Your task to perform on an android device: Open my contact list Image 0: 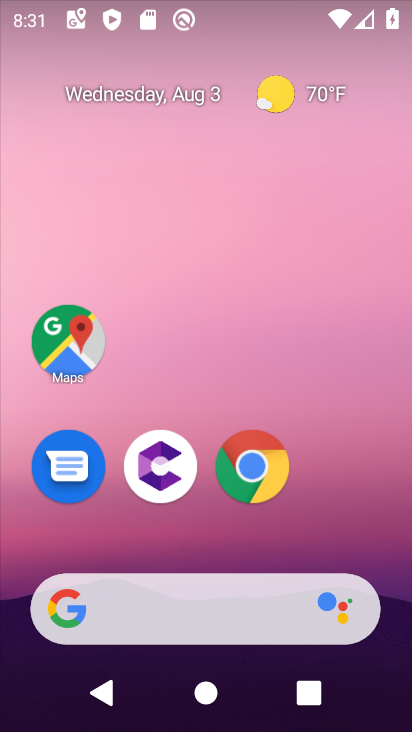
Step 0: drag from (342, 491) to (307, 26)
Your task to perform on an android device: Open my contact list Image 1: 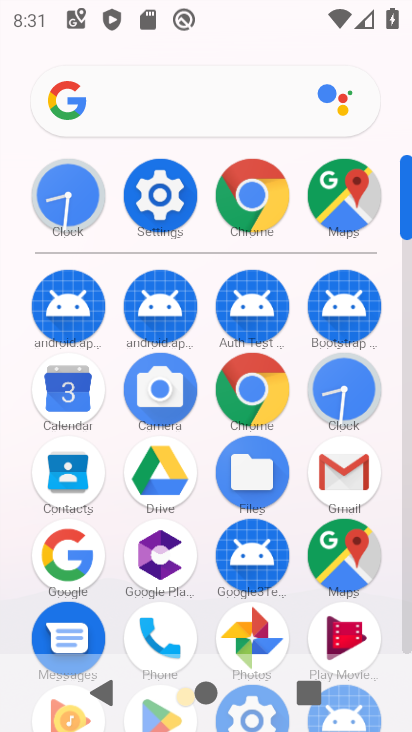
Step 1: drag from (302, 507) to (300, 189)
Your task to perform on an android device: Open my contact list Image 2: 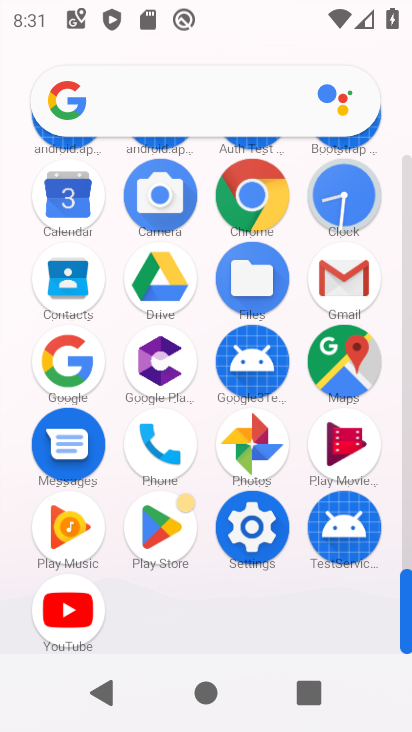
Step 2: click (83, 185)
Your task to perform on an android device: Open my contact list Image 3: 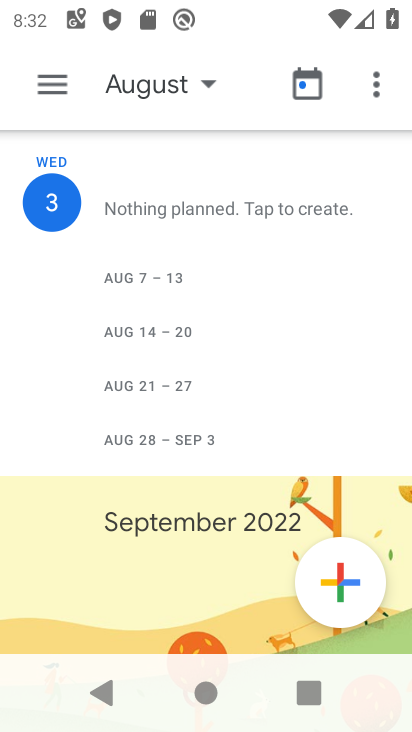
Step 3: press home button
Your task to perform on an android device: Open my contact list Image 4: 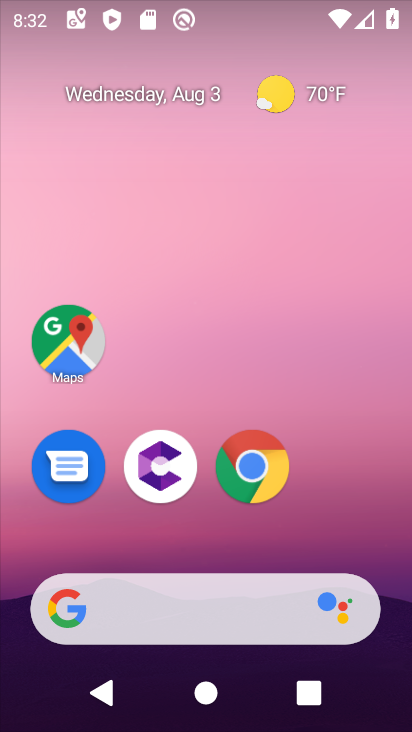
Step 4: drag from (353, 513) to (357, 50)
Your task to perform on an android device: Open my contact list Image 5: 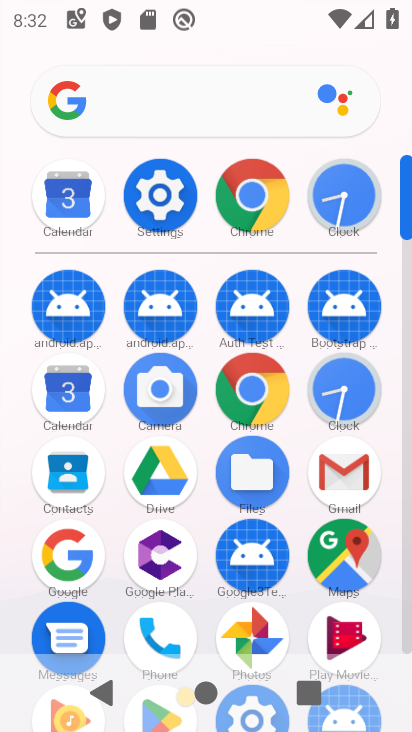
Step 5: click (57, 484)
Your task to perform on an android device: Open my contact list Image 6: 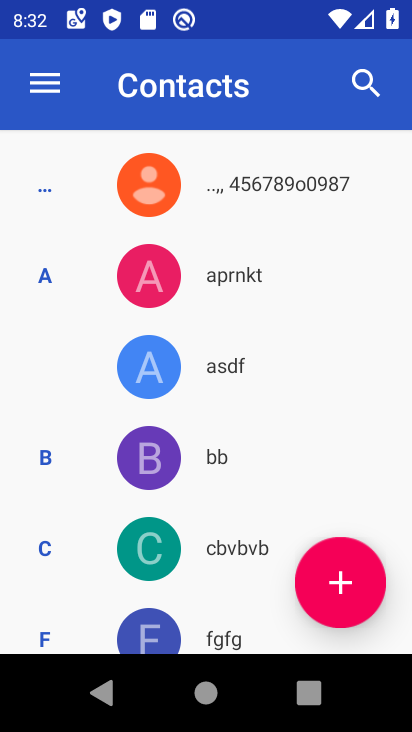
Step 6: task complete